Your task to perform on an android device: turn off javascript in the chrome app Image 0: 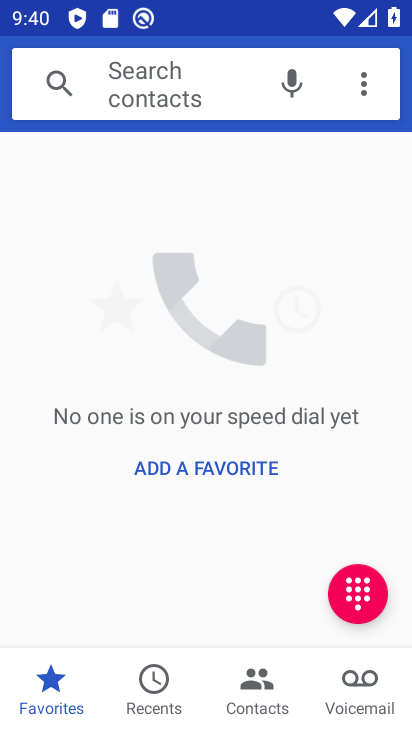
Step 0: press home button
Your task to perform on an android device: turn off javascript in the chrome app Image 1: 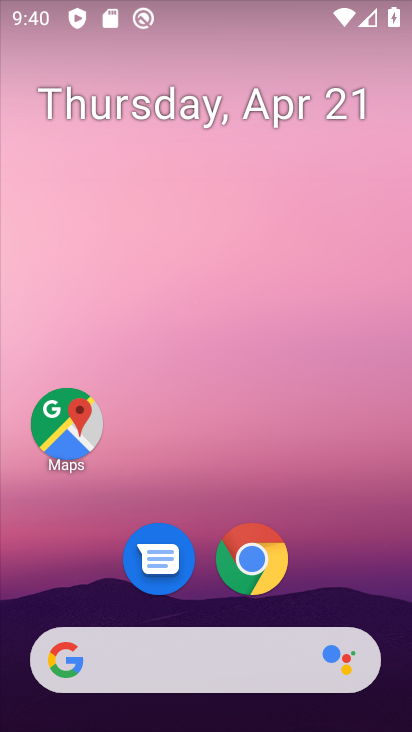
Step 1: drag from (243, 699) to (258, 271)
Your task to perform on an android device: turn off javascript in the chrome app Image 2: 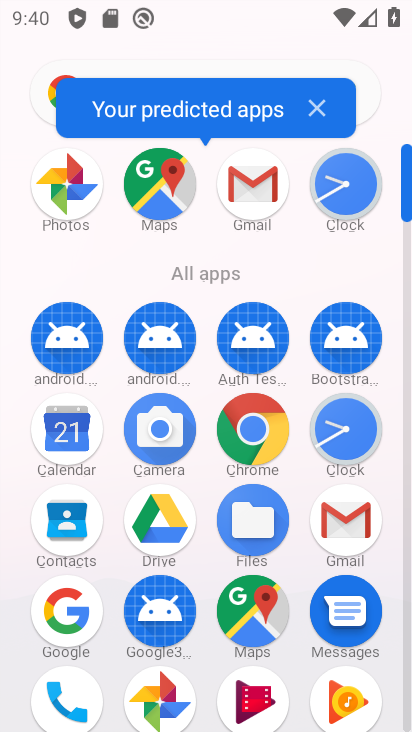
Step 2: click (245, 426)
Your task to perform on an android device: turn off javascript in the chrome app Image 3: 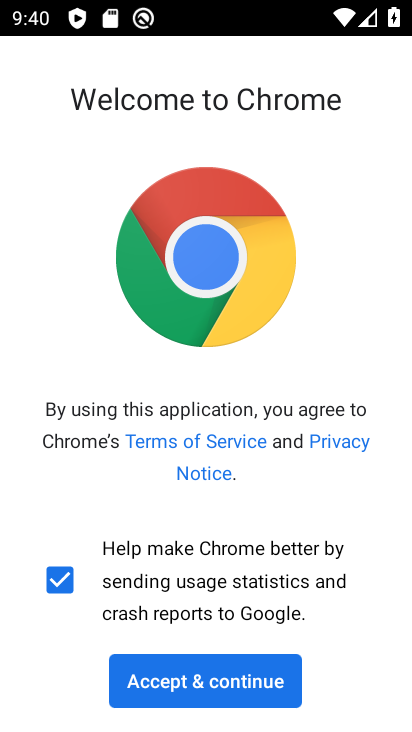
Step 3: click (185, 670)
Your task to perform on an android device: turn off javascript in the chrome app Image 4: 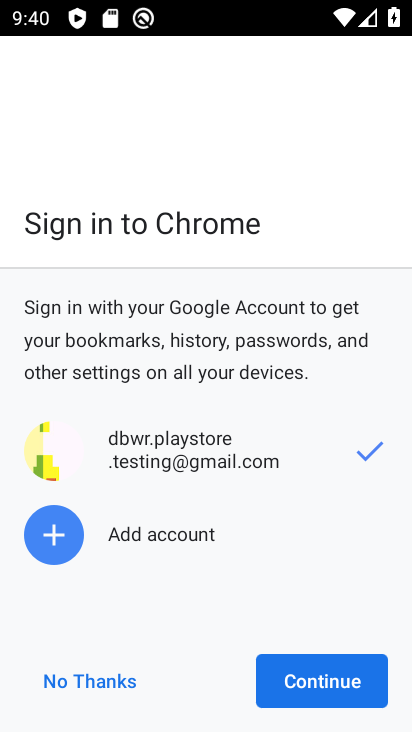
Step 4: click (303, 692)
Your task to perform on an android device: turn off javascript in the chrome app Image 5: 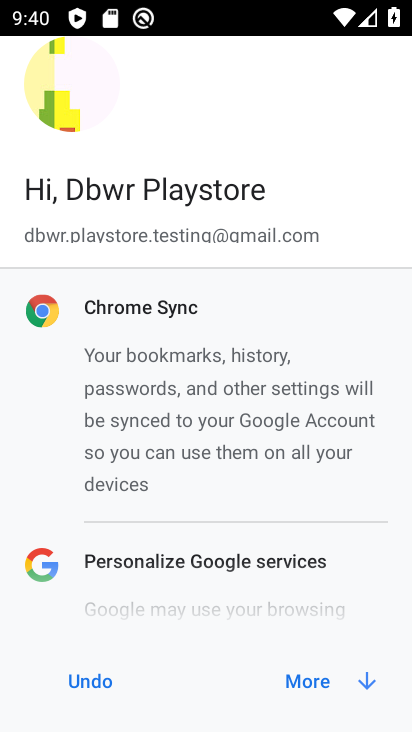
Step 5: click (359, 685)
Your task to perform on an android device: turn off javascript in the chrome app Image 6: 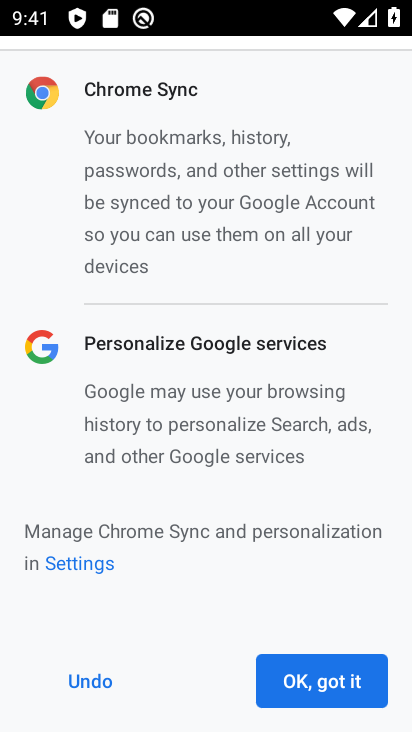
Step 6: drag from (327, 456) to (385, 331)
Your task to perform on an android device: turn off javascript in the chrome app Image 7: 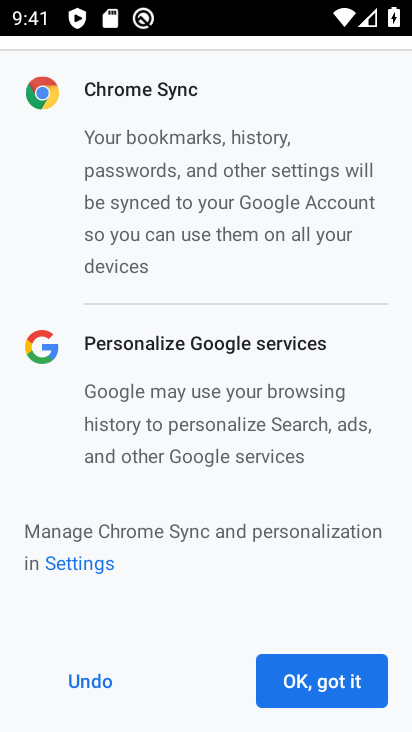
Step 7: click (304, 674)
Your task to perform on an android device: turn off javascript in the chrome app Image 8: 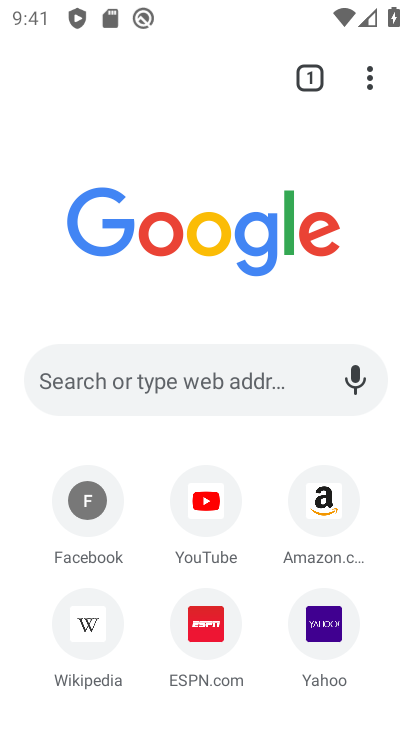
Step 8: click (369, 76)
Your task to perform on an android device: turn off javascript in the chrome app Image 9: 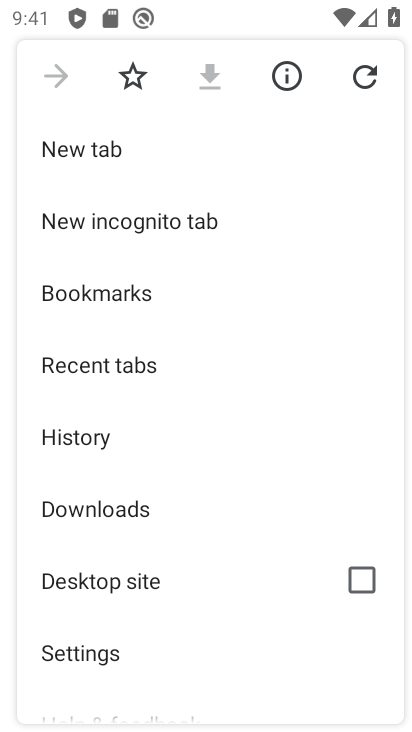
Step 9: click (103, 647)
Your task to perform on an android device: turn off javascript in the chrome app Image 10: 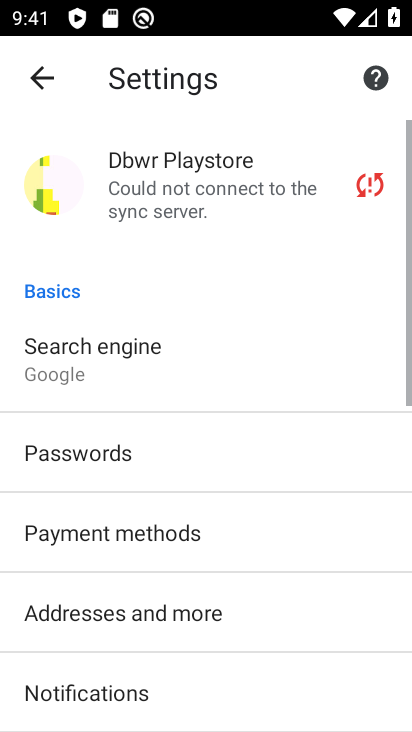
Step 10: drag from (186, 586) to (255, 376)
Your task to perform on an android device: turn off javascript in the chrome app Image 11: 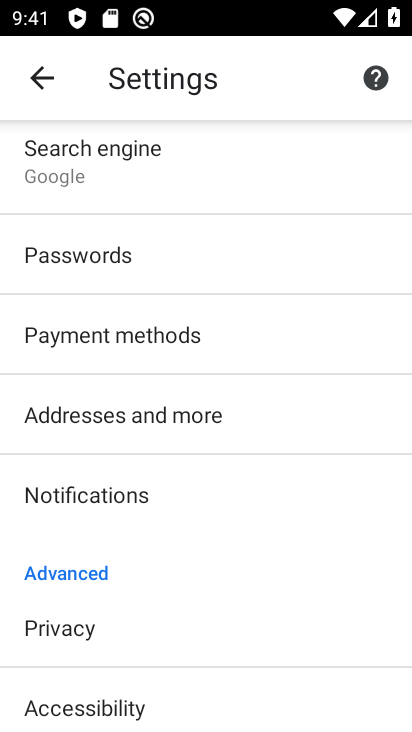
Step 11: drag from (172, 541) to (238, 335)
Your task to perform on an android device: turn off javascript in the chrome app Image 12: 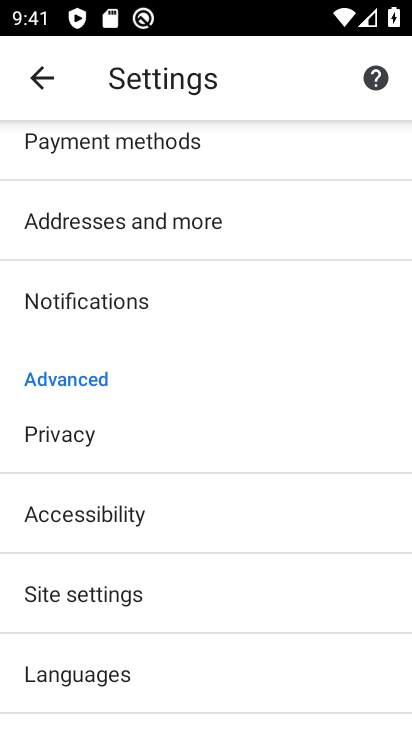
Step 12: click (86, 587)
Your task to perform on an android device: turn off javascript in the chrome app Image 13: 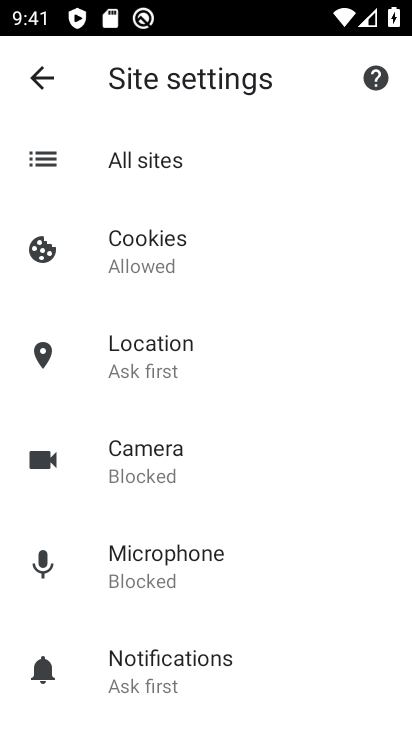
Step 13: drag from (176, 624) to (274, 393)
Your task to perform on an android device: turn off javascript in the chrome app Image 14: 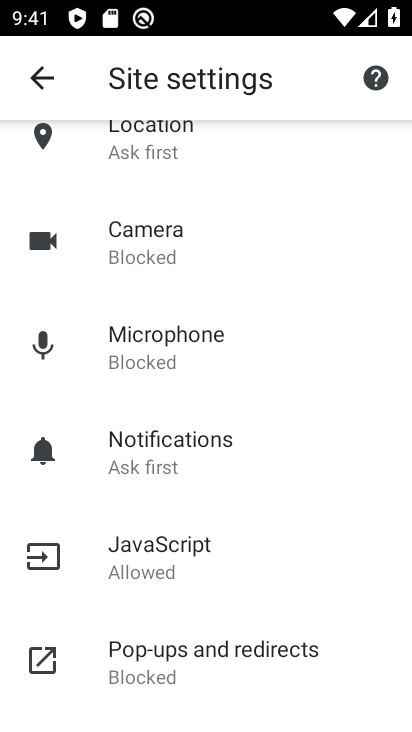
Step 14: click (149, 539)
Your task to perform on an android device: turn off javascript in the chrome app Image 15: 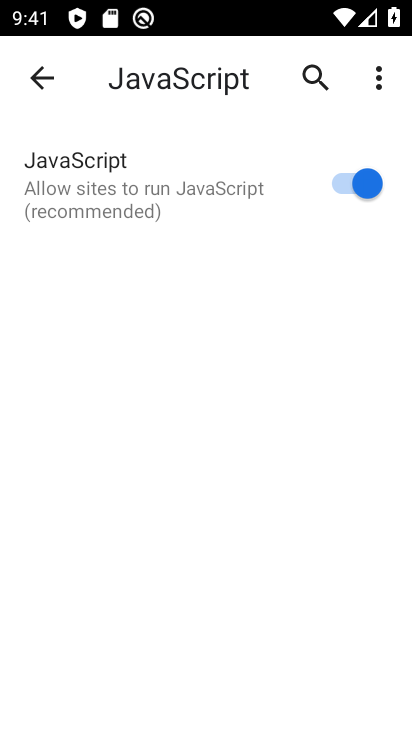
Step 15: click (335, 195)
Your task to perform on an android device: turn off javascript in the chrome app Image 16: 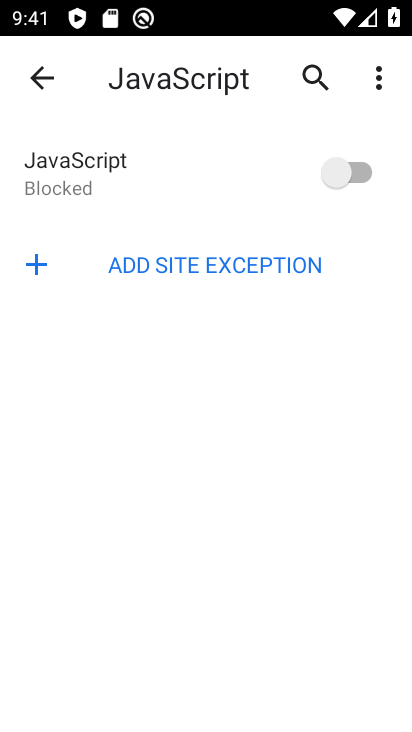
Step 16: task complete